Your task to perform on an android device: Open calendar and show me the fourth week of next month Image 0: 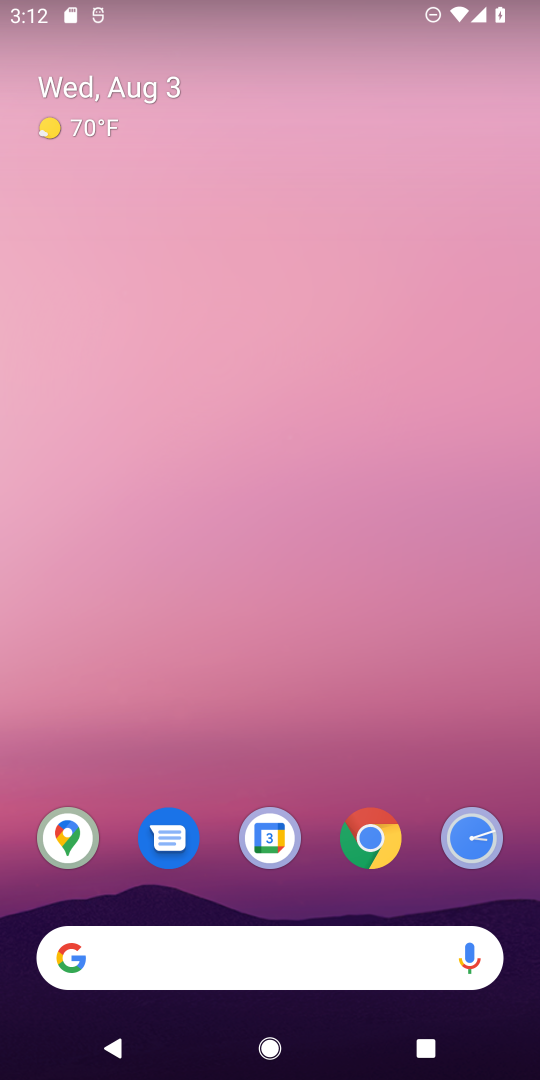
Step 0: click (272, 835)
Your task to perform on an android device: Open calendar and show me the fourth week of next month Image 1: 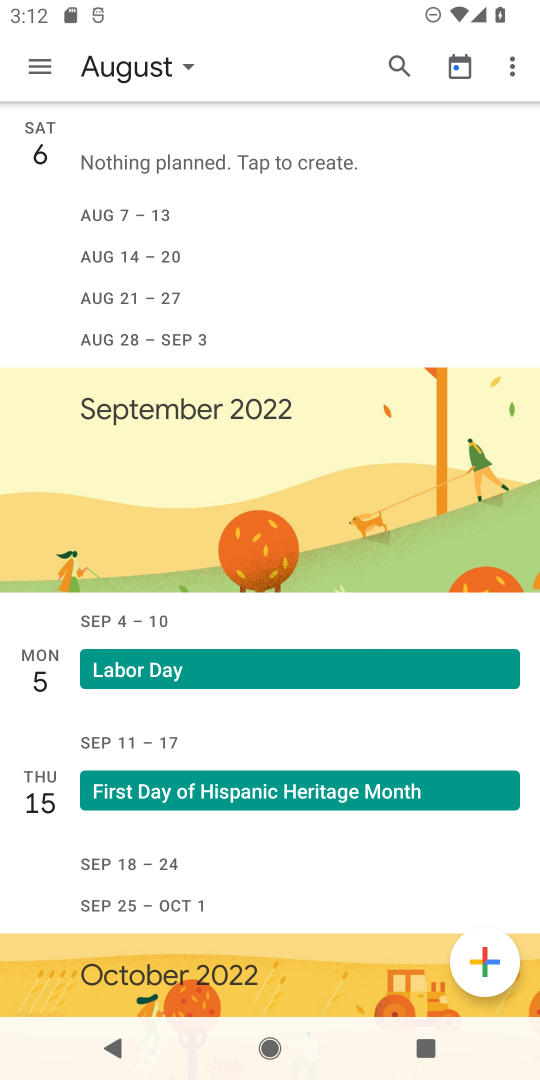
Step 1: click (144, 66)
Your task to perform on an android device: Open calendar and show me the fourth week of next month Image 2: 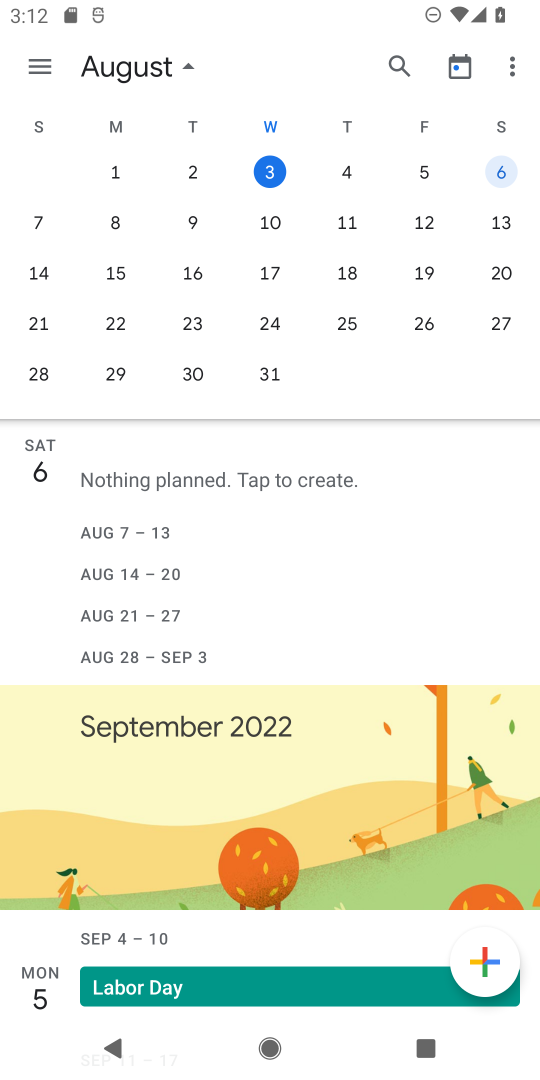
Step 2: drag from (534, 263) to (5, 186)
Your task to perform on an android device: Open calendar and show me the fourth week of next month Image 3: 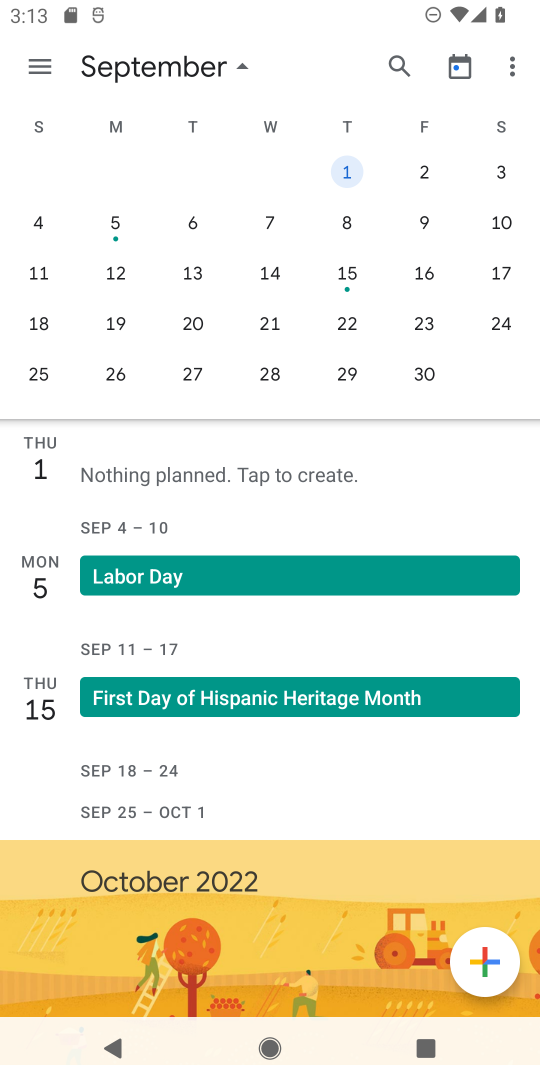
Step 3: click (45, 322)
Your task to perform on an android device: Open calendar and show me the fourth week of next month Image 4: 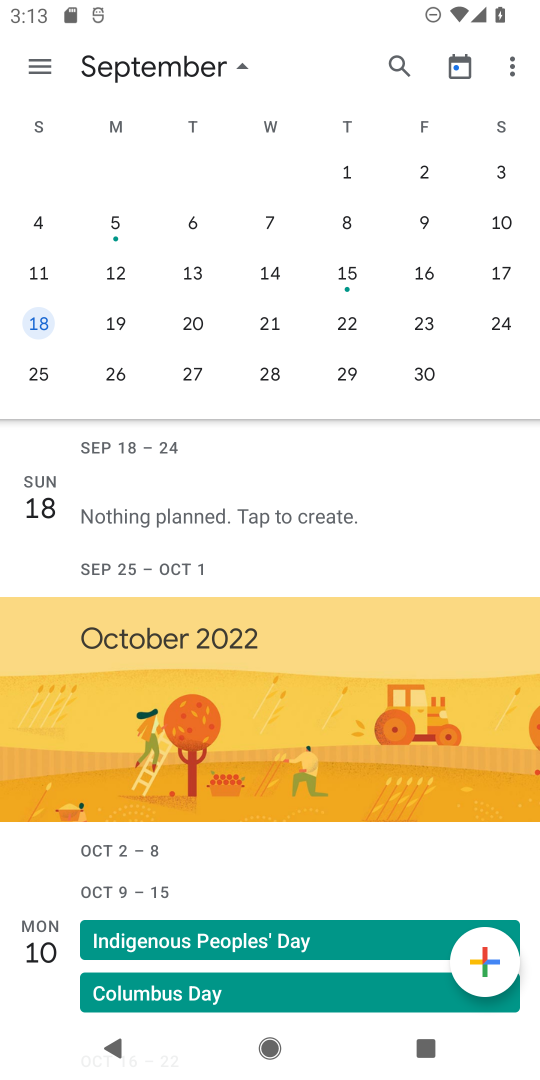
Step 4: task complete